Your task to perform on an android device: turn on location history Image 0: 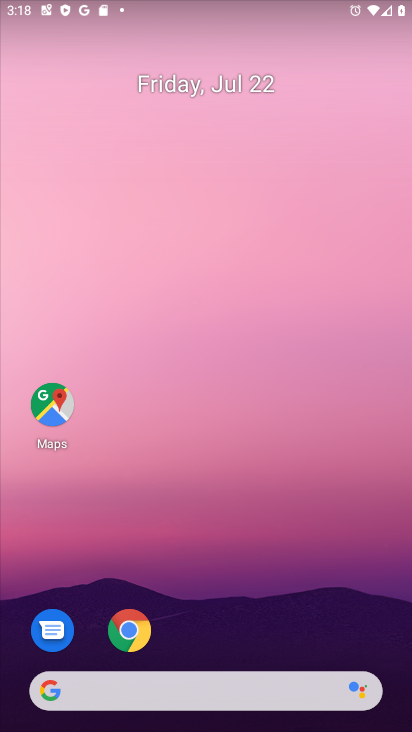
Step 0: drag from (217, 679) to (333, 20)
Your task to perform on an android device: turn on location history Image 1: 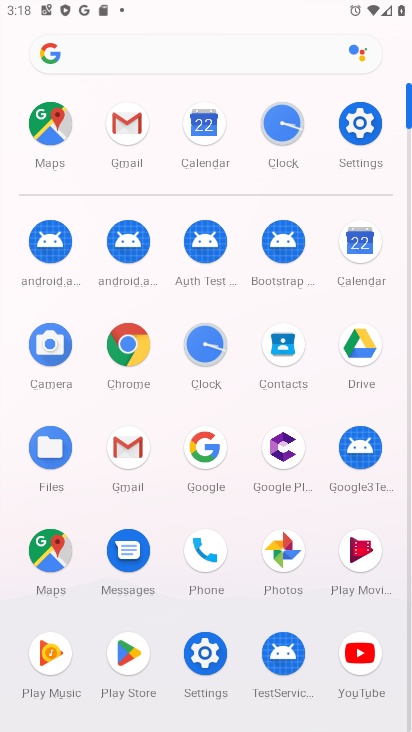
Step 1: click (356, 148)
Your task to perform on an android device: turn on location history Image 2: 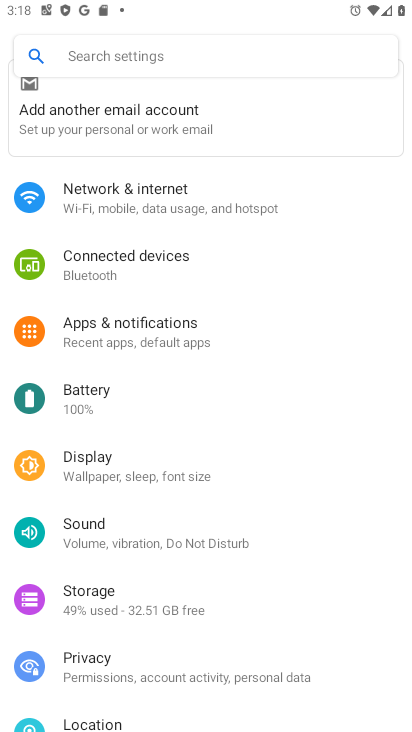
Step 2: click (74, 709)
Your task to perform on an android device: turn on location history Image 3: 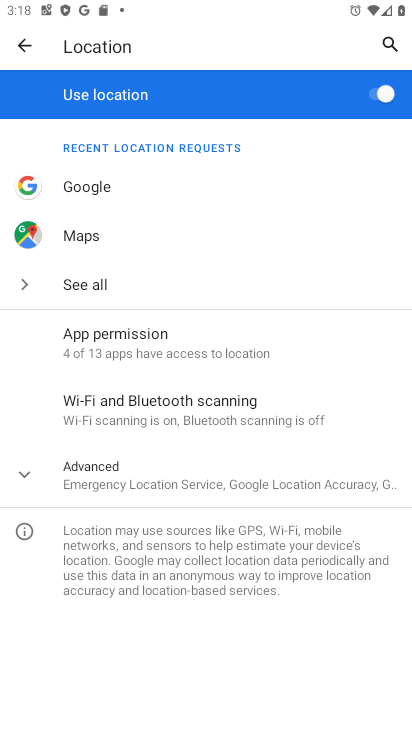
Step 3: click (78, 485)
Your task to perform on an android device: turn on location history Image 4: 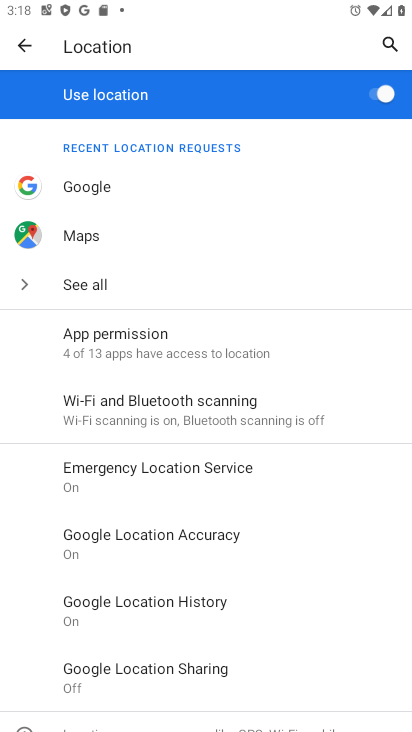
Step 4: click (169, 591)
Your task to perform on an android device: turn on location history Image 5: 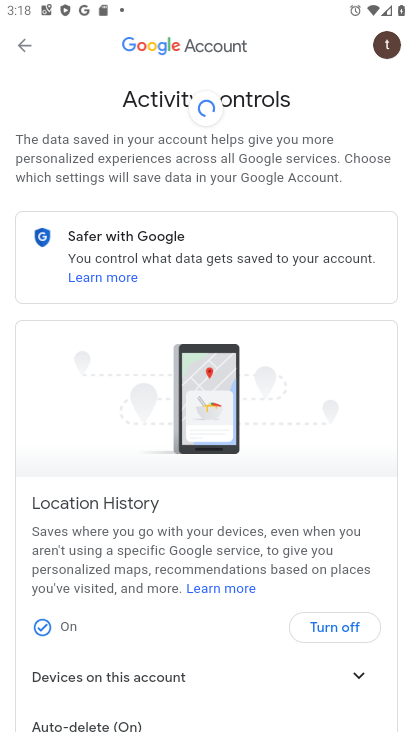
Step 5: task complete